Your task to perform on an android device: open app "YouTube Kids" (install if not already installed) and enter user name: "atmospheric@gmail.com" and password: "raze" Image 0: 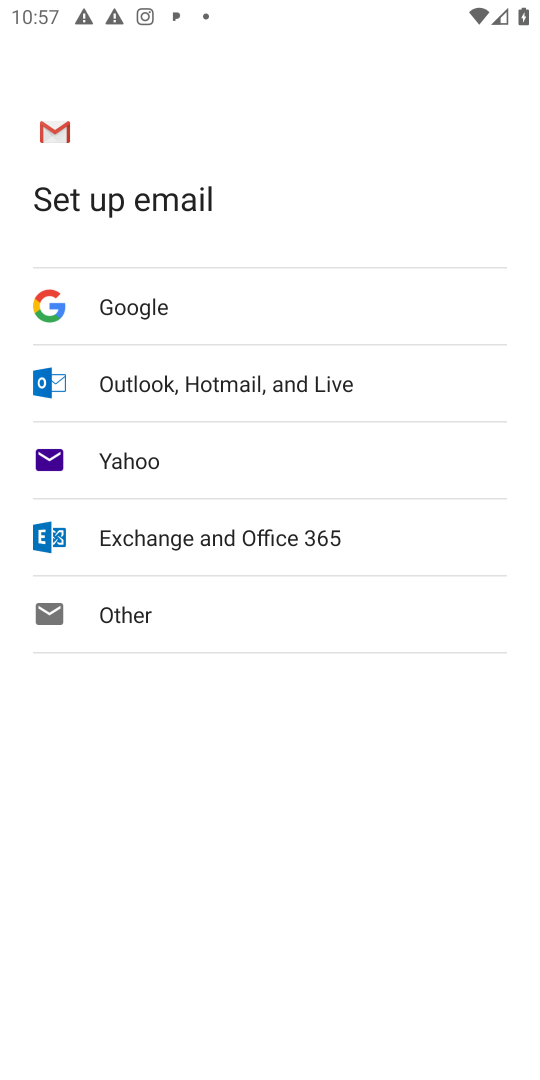
Step 0: press home button
Your task to perform on an android device: open app "YouTube Kids" (install if not already installed) and enter user name: "atmospheric@gmail.com" and password: "raze" Image 1: 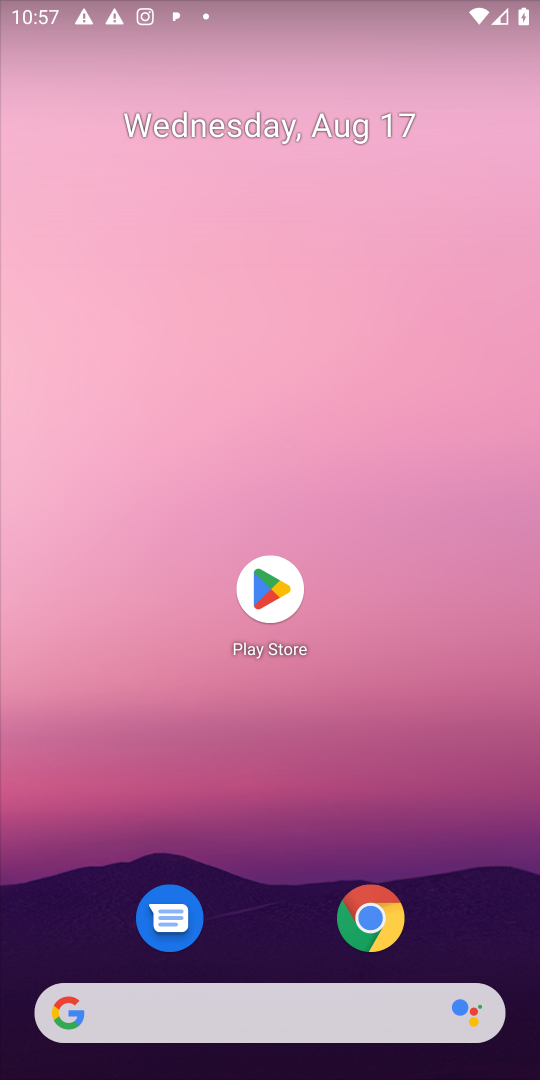
Step 1: click (266, 583)
Your task to perform on an android device: open app "YouTube Kids" (install if not already installed) and enter user name: "atmospheric@gmail.com" and password: "raze" Image 2: 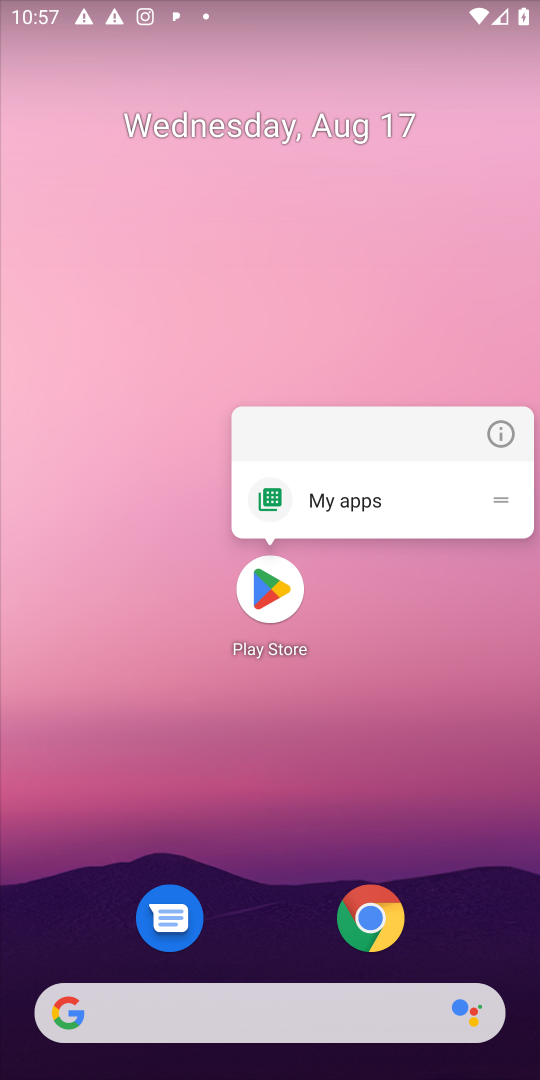
Step 2: click (265, 583)
Your task to perform on an android device: open app "YouTube Kids" (install if not already installed) and enter user name: "atmospheric@gmail.com" and password: "raze" Image 3: 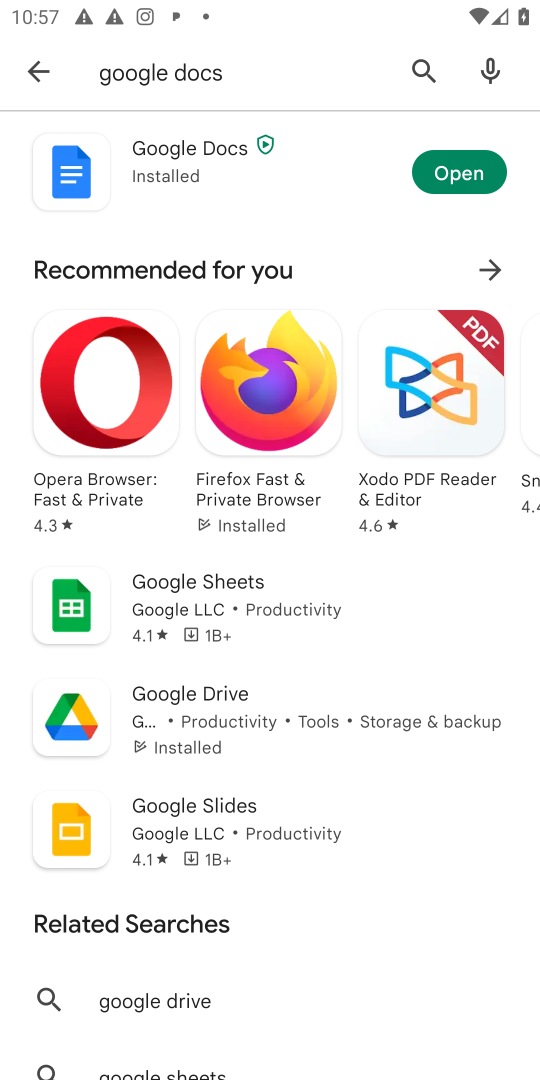
Step 3: click (420, 66)
Your task to perform on an android device: open app "YouTube Kids" (install if not already installed) and enter user name: "atmospheric@gmail.com" and password: "raze" Image 4: 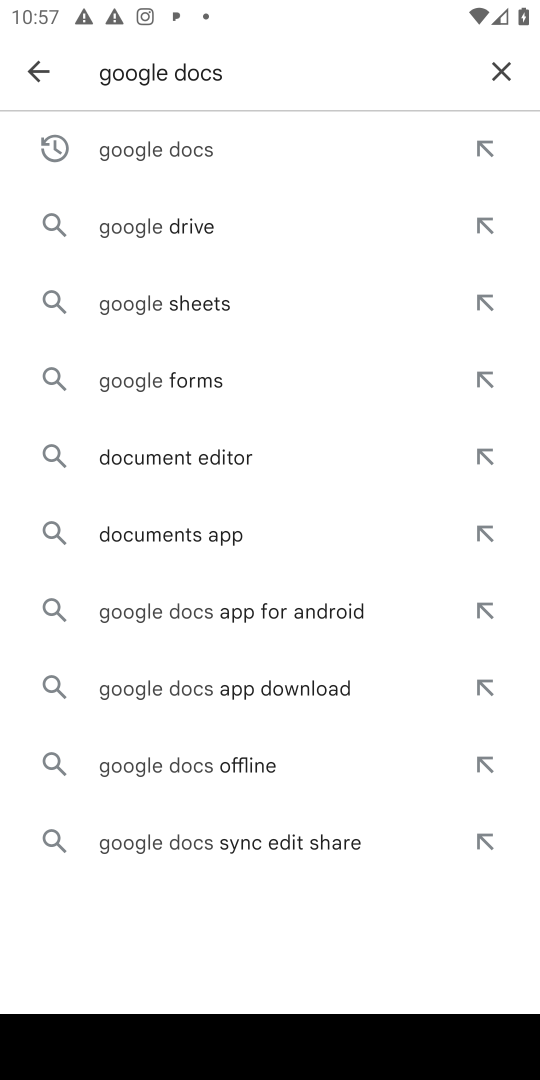
Step 4: click (496, 59)
Your task to perform on an android device: open app "YouTube Kids" (install if not already installed) and enter user name: "atmospheric@gmail.com" and password: "raze" Image 5: 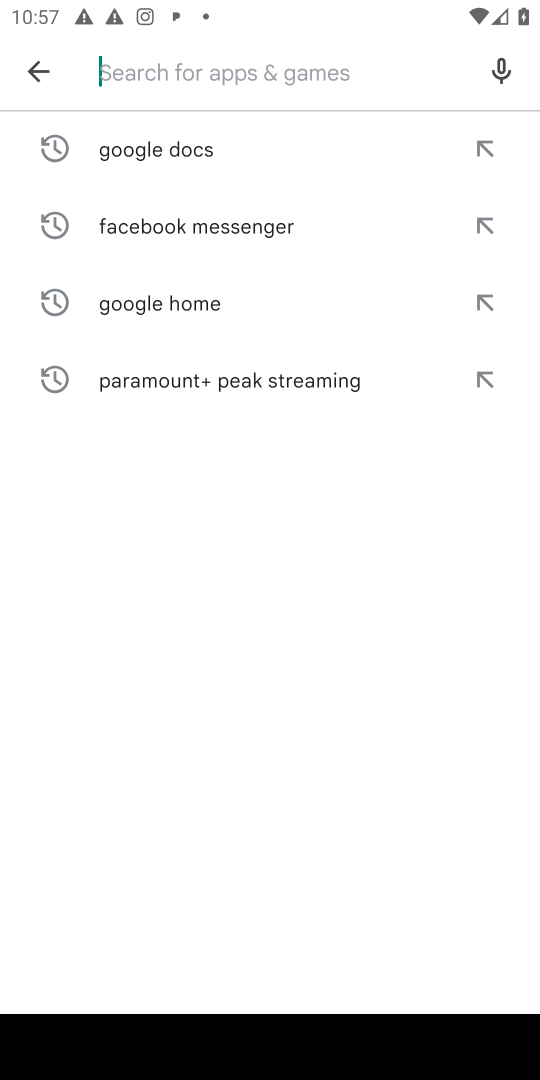
Step 5: type "YouTube Kids"
Your task to perform on an android device: open app "YouTube Kids" (install if not already installed) and enter user name: "atmospheric@gmail.com" and password: "raze" Image 6: 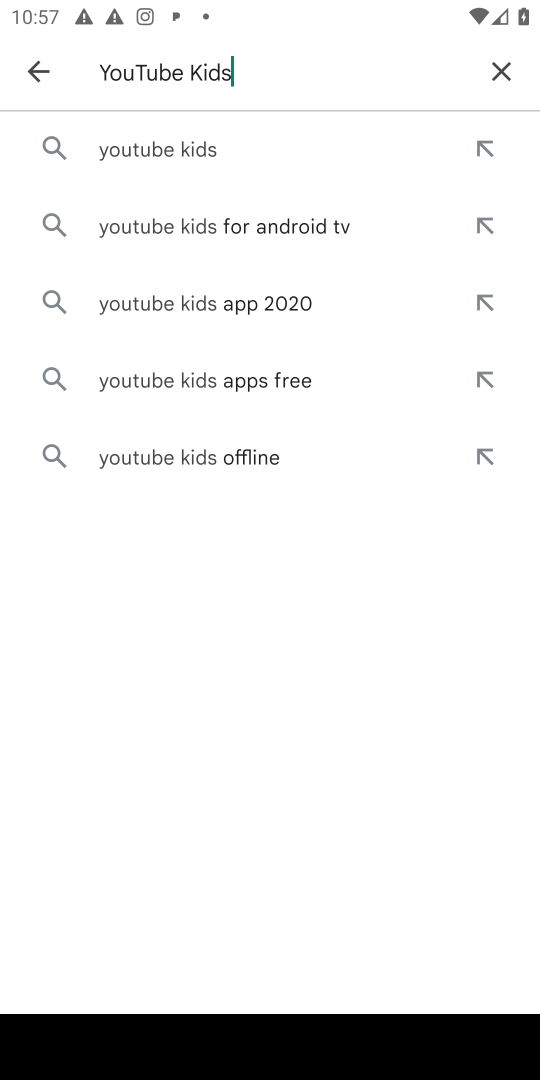
Step 6: click (183, 148)
Your task to perform on an android device: open app "YouTube Kids" (install if not already installed) and enter user name: "atmospheric@gmail.com" and password: "raze" Image 7: 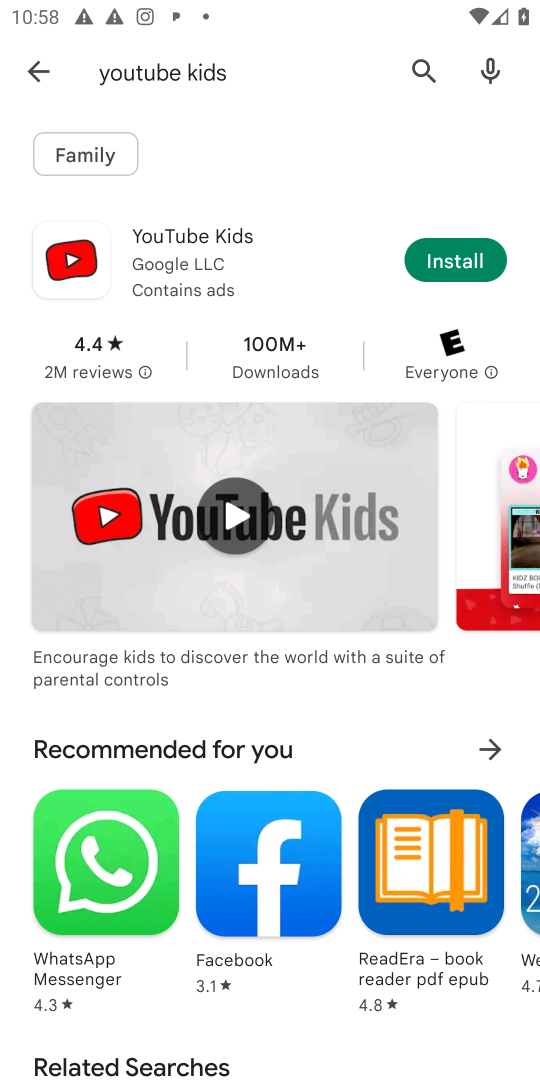
Step 7: click (466, 262)
Your task to perform on an android device: open app "YouTube Kids" (install if not already installed) and enter user name: "atmospheric@gmail.com" and password: "raze" Image 8: 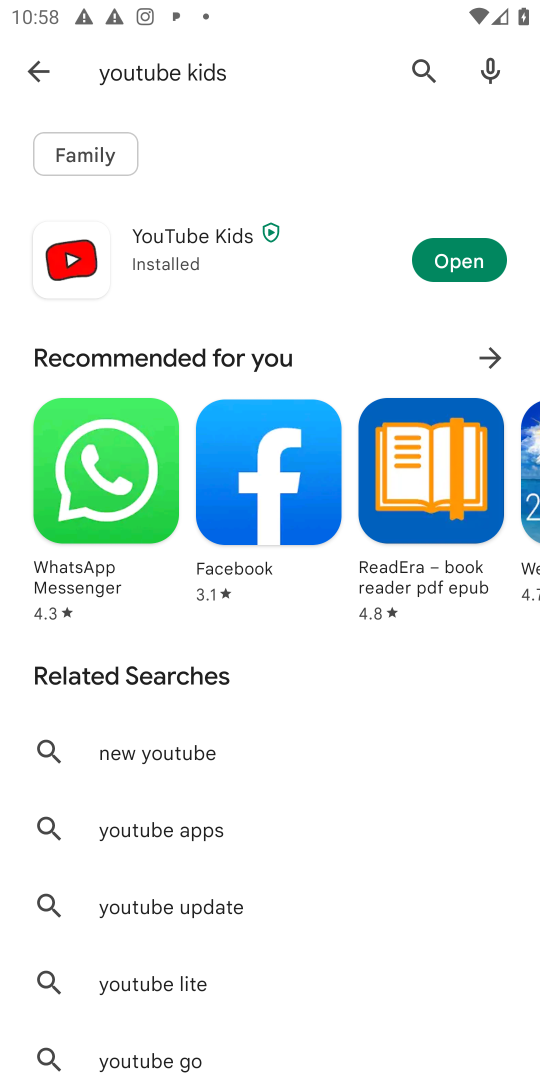
Step 8: click (441, 258)
Your task to perform on an android device: open app "YouTube Kids" (install if not already installed) and enter user name: "atmospheric@gmail.com" and password: "raze" Image 9: 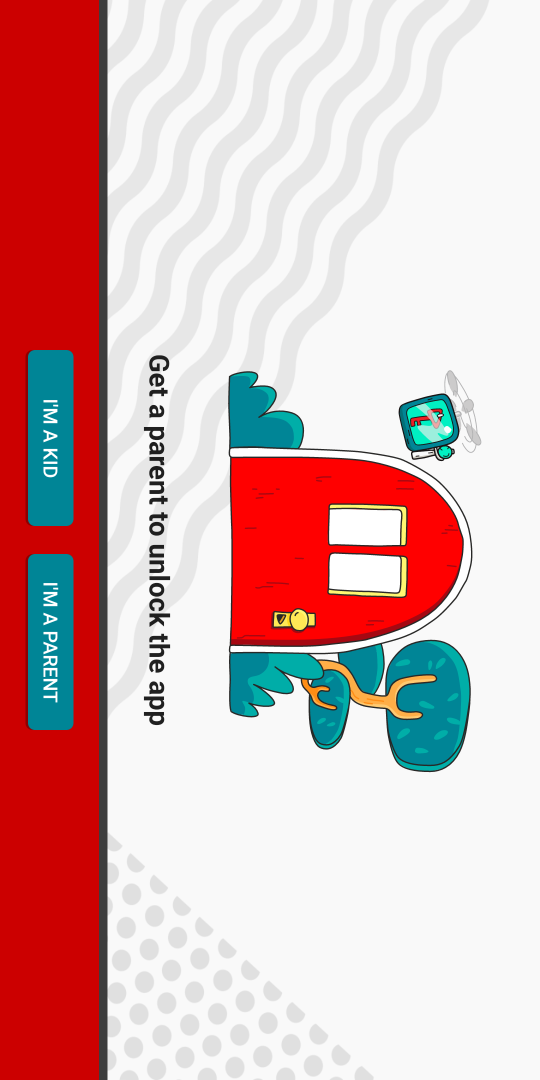
Step 9: task complete